Your task to perform on an android device: turn on sleep mode Image 0: 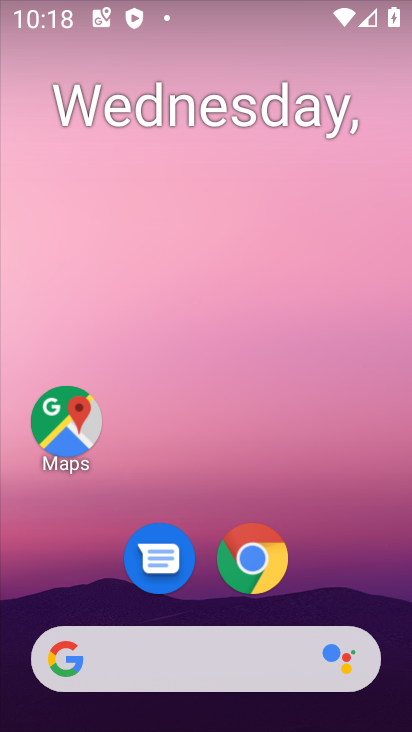
Step 0: press home button
Your task to perform on an android device: turn on sleep mode Image 1: 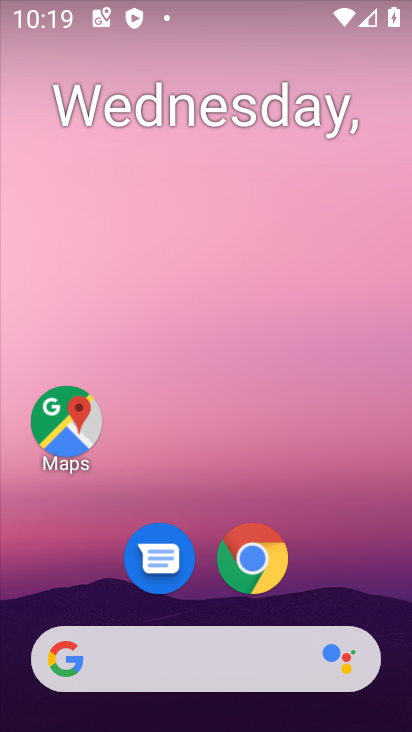
Step 1: drag from (19, 501) to (220, 124)
Your task to perform on an android device: turn on sleep mode Image 2: 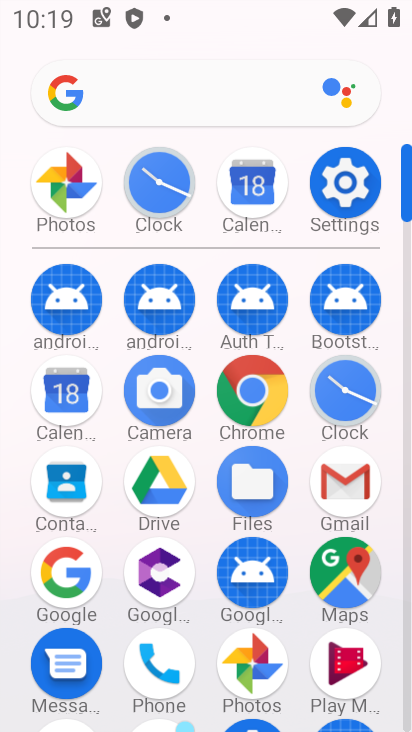
Step 2: click (360, 188)
Your task to perform on an android device: turn on sleep mode Image 3: 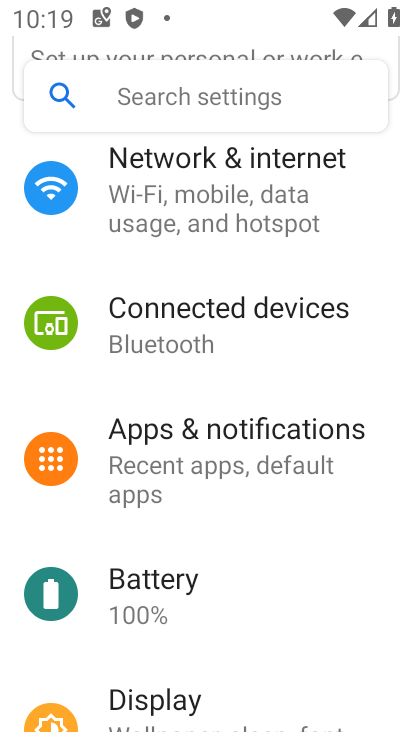
Step 3: task complete